Your task to perform on an android device: Open Google Maps Image 0: 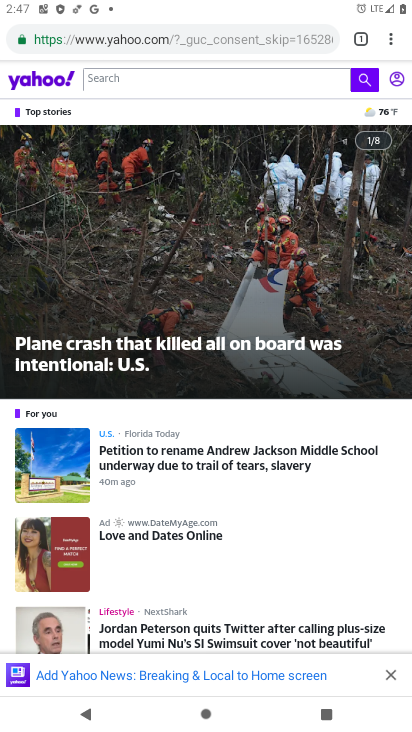
Step 0: press home button
Your task to perform on an android device: Open Google Maps Image 1: 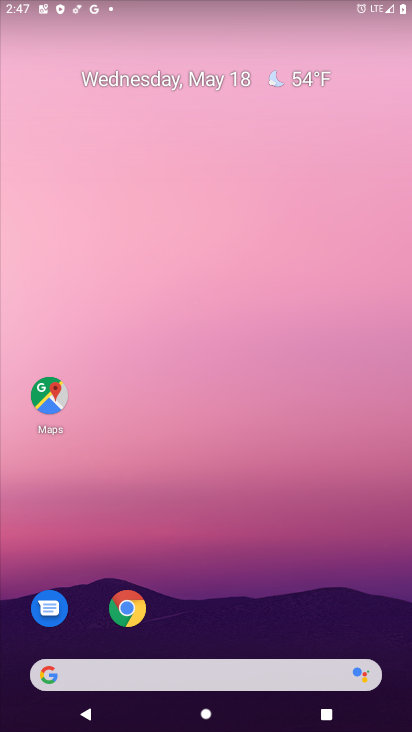
Step 1: click (48, 394)
Your task to perform on an android device: Open Google Maps Image 2: 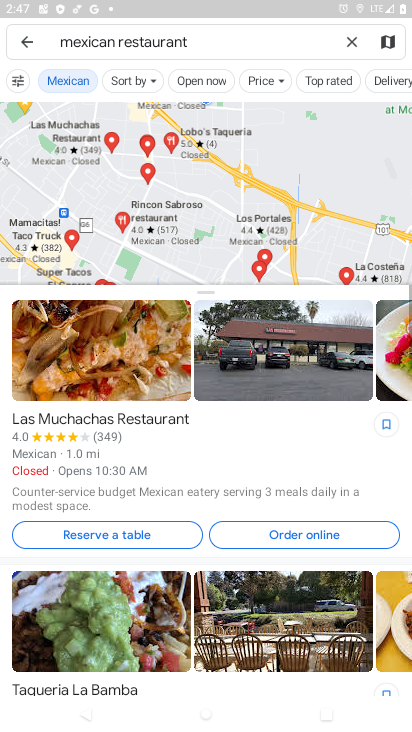
Step 2: task complete